Your task to perform on an android device: Open calendar and show me the first week of next month Image 0: 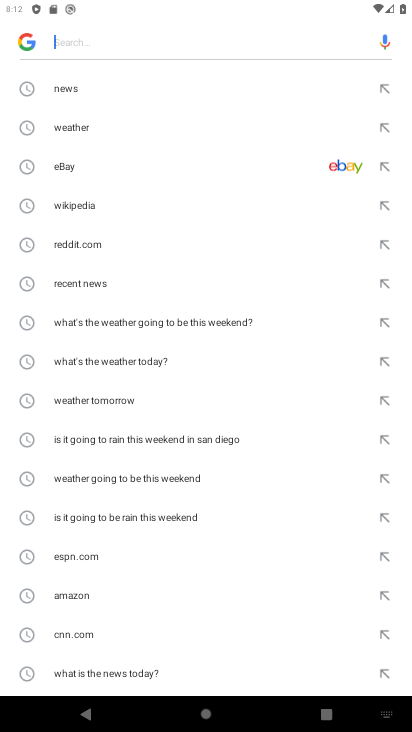
Step 0: press home button
Your task to perform on an android device: Open calendar and show me the first week of next month Image 1: 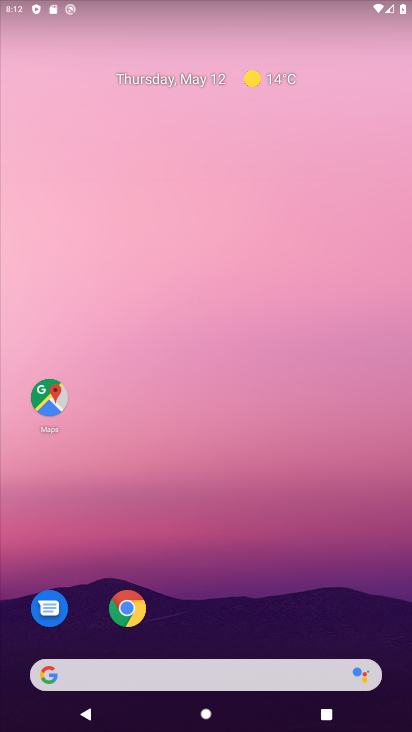
Step 1: drag from (219, 657) to (208, 275)
Your task to perform on an android device: Open calendar and show me the first week of next month Image 2: 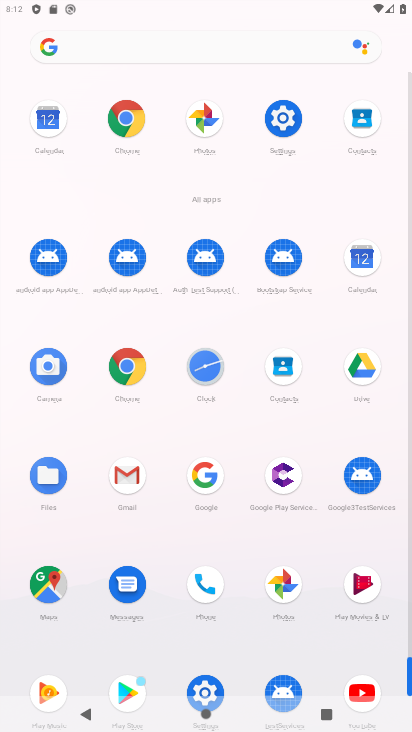
Step 2: click (362, 266)
Your task to perform on an android device: Open calendar and show me the first week of next month Image 3: 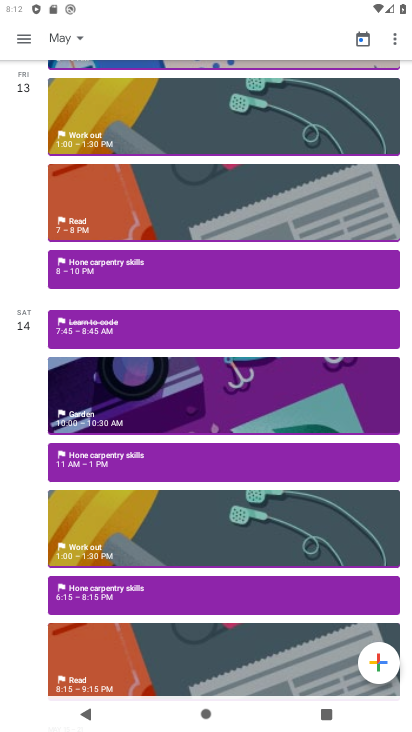
Step 3: click (59, 45)
Your task to perform on an android device: Open calendar and show me the first week of next month Image 4: 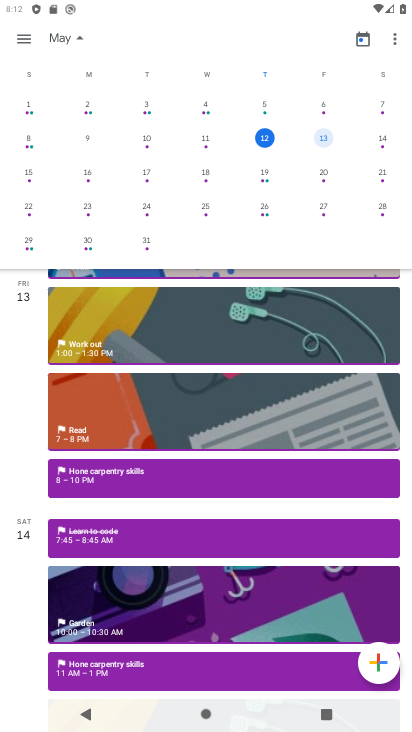
Step 4: drag from (328, 237) to (6, 255)
Your task to perform on an android device: Open calendar and show me the first week of next month Image 5: 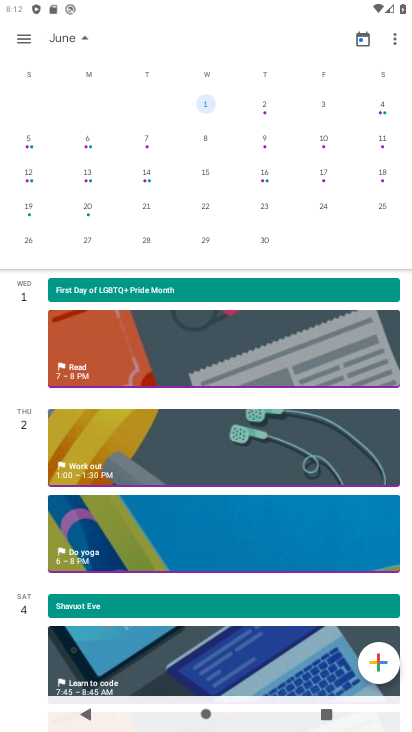
Step 5: click (203, 98)
Your task to perform on an android device: Open calendar and show me the first week of next month Image 6: 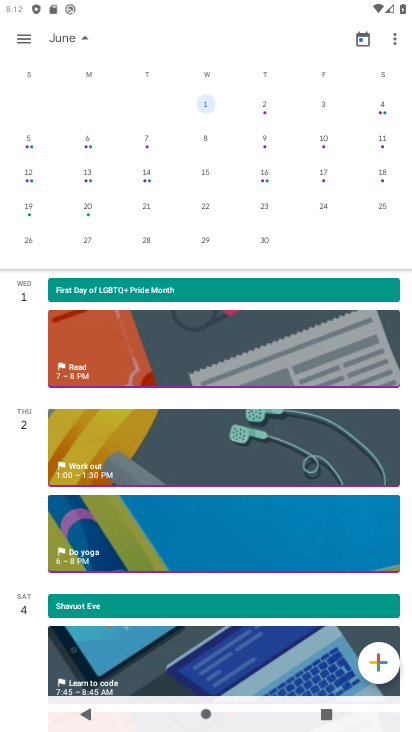
Step 6: task complete